Your task to perform on an android device: Check the weather Image 0: 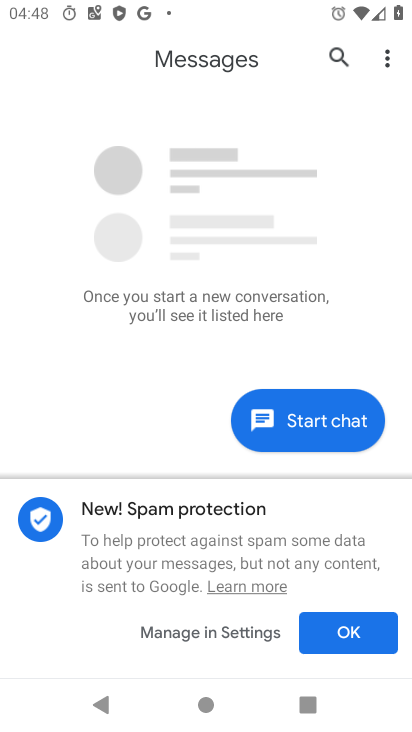
Step 0: press home button
Your task to perform on an android device: Check the weather Image 1: 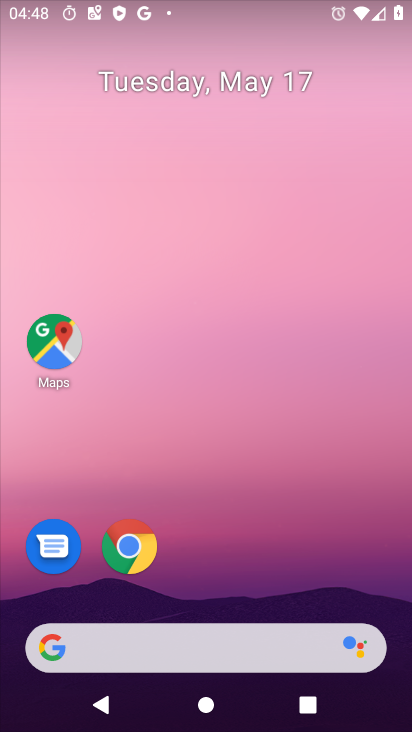
Step 1: drag from (401, 606) to (386, 297)
Your task to perform on an android device: Check the weather Image 2: 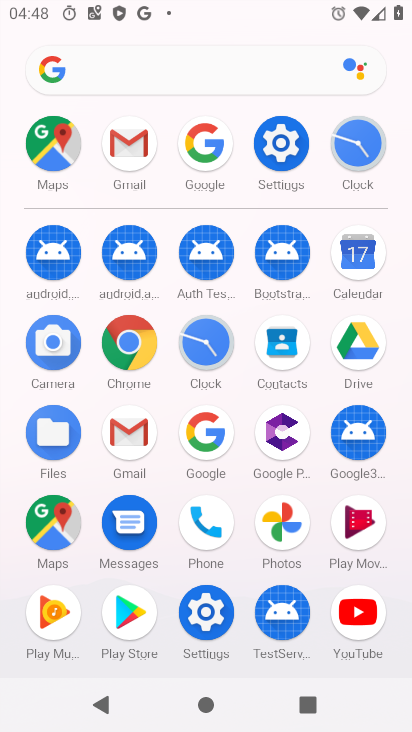
Step 2: click (206, 432)
Your task to perform on an android device: Check the weather Image 3: 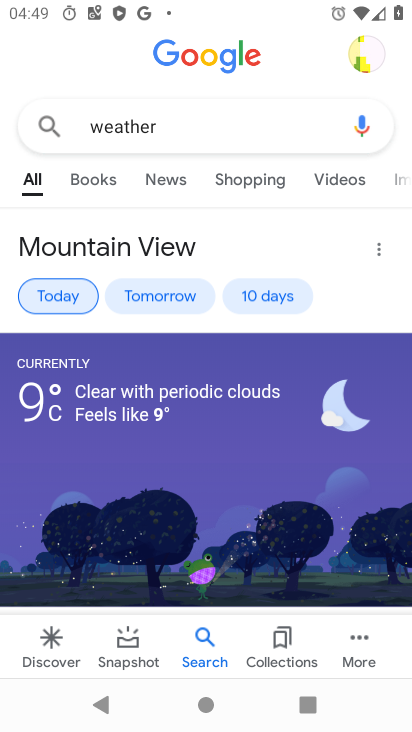
Step 3: click (60, 296)
Your task to perform on an android device: Check the weather Image 4: 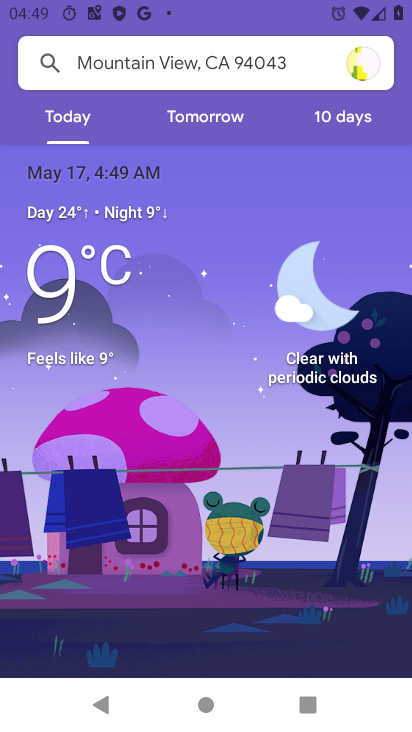
Step 4: task complete